Your task to perform on an android device: change the clock display to digital Image 0: 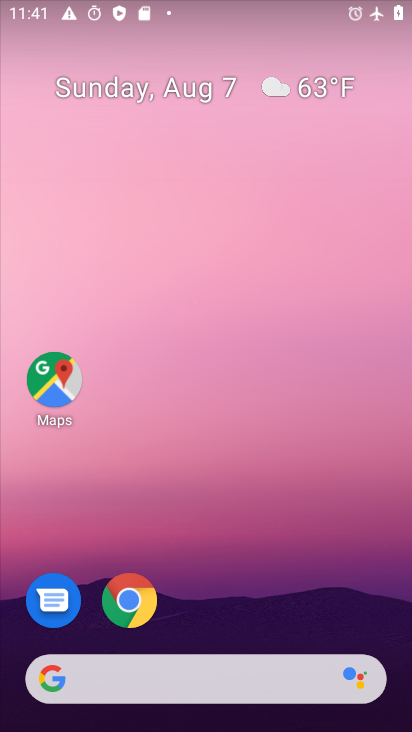
Step 0: drag from (191, 521) to (247, 58)
Your task to perform on an android device: change the clock display to digital Image 1: 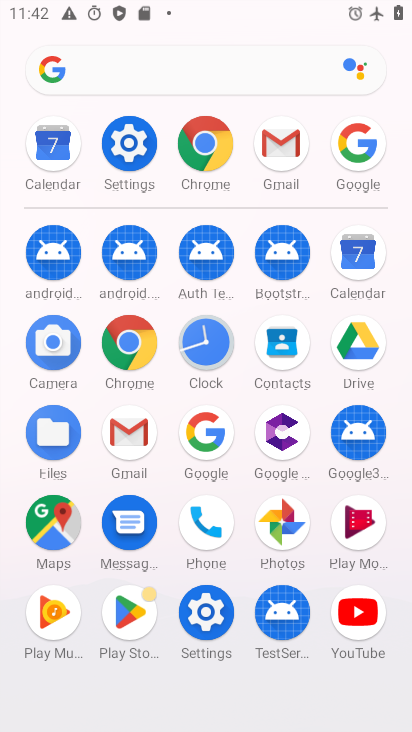
Step 1: click (206, 367)
Your task to perform on an android device: change the clock display to digital Image 2: 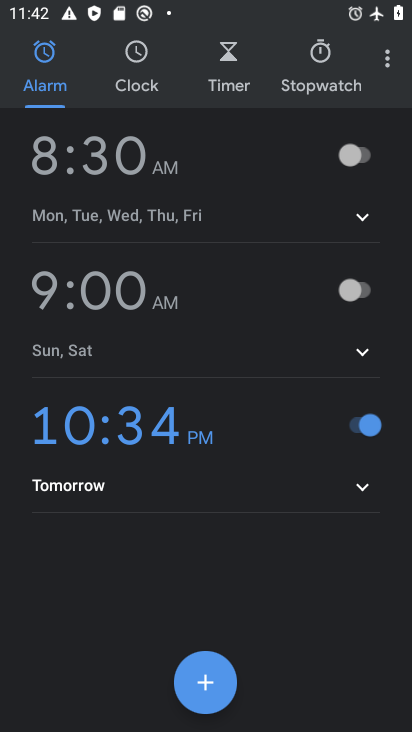
Step 2: click (383, 56)
Your task to perform on an android device: change the clock display to digital Image 3: 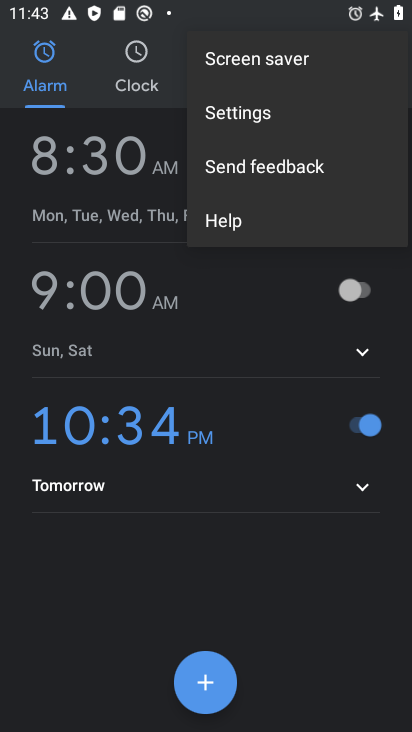
Step 3: click (220, 115)
Your task to perform on an android device: change the clock display to digital Image 4: 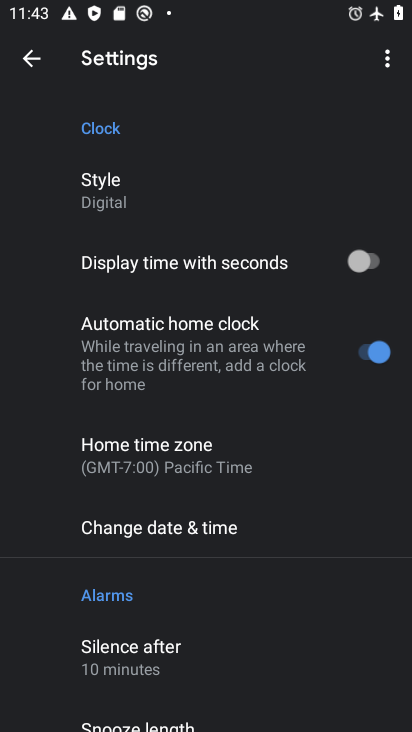
Step 4: task complete